Your task to perform on an android device: Open settings Image 0: 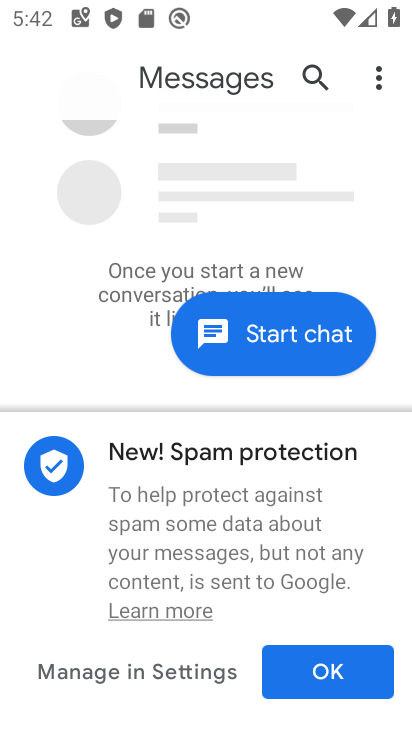
Step 0: press home button
Your task to perform on an android device: Open settings Image 1: 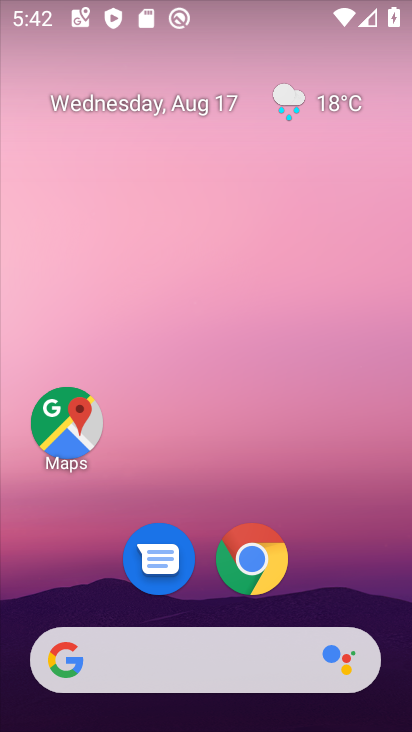
Step 1: drag from (230, 474) to (166, 8)
Your task to perform on an android device: Open settings Image 2: 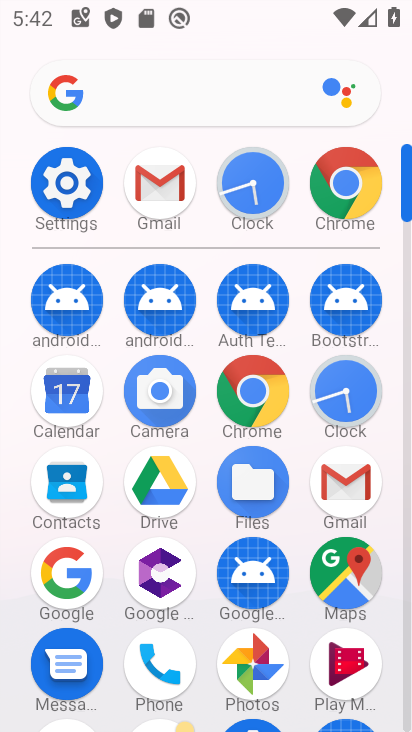
Step 2: click (76, 170)
Your task to perform on an android device: Open settings Image 3: 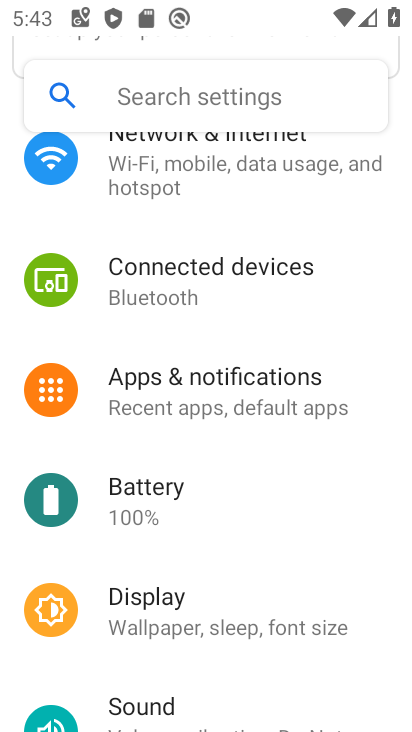
Step 3: task complete